Your task to perform on an android device: change the clock style Image 0: 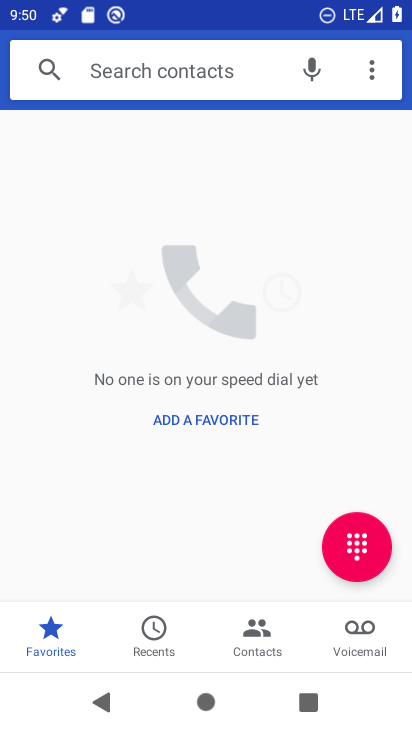
Step 0: press home button
Your task to perform on an android device: change the clock style Image 1: 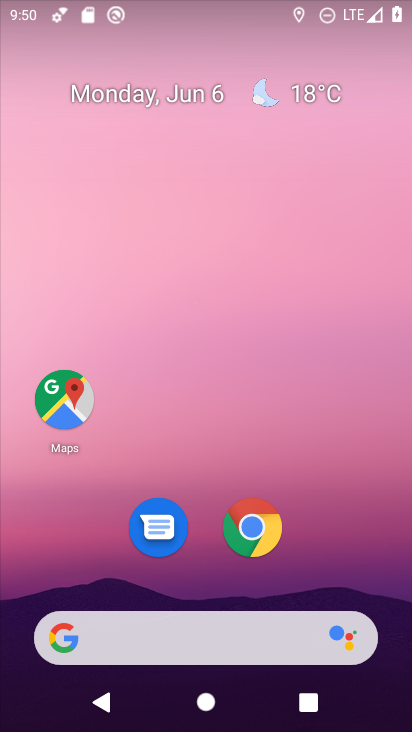
Step 1: drag from (352, 570) to (357, 171)
Your task to perform on an android device: change the clock style Image 2: 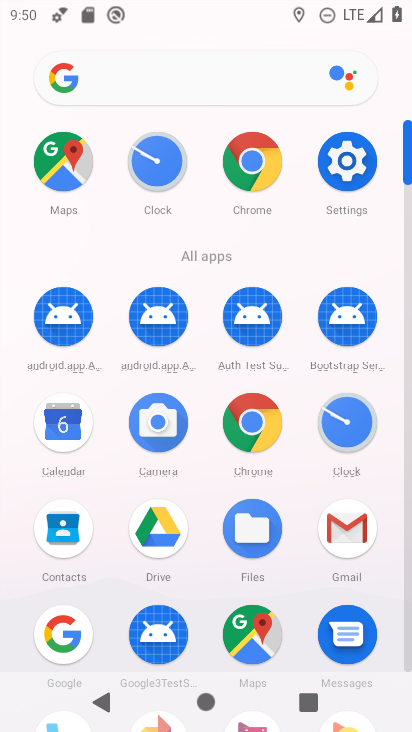
Step 2: click (354, 427)
Your task to perform on an android device: change the clock style Image 3: 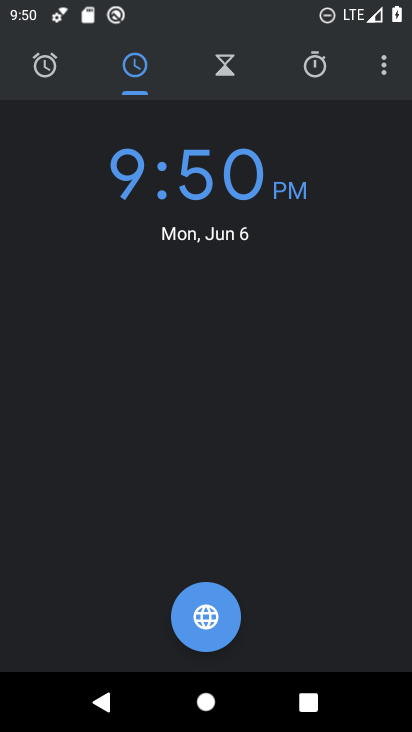
Step 3: click (388, 75)
Your task to perform on an android device: change the clock style Image 4: 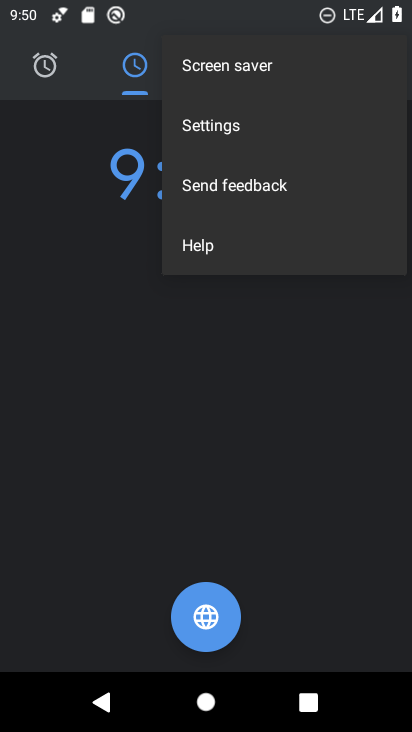
Step 4: click (274, 130)
Your task to perform on an android device: change the clock style Image 5: 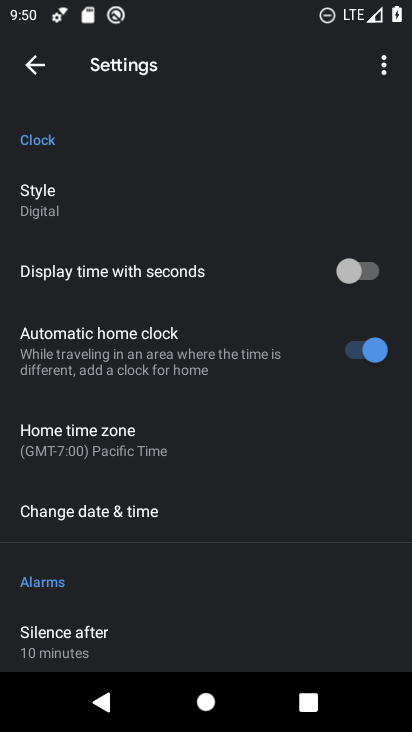
Step 5: click (97, 211)
Your task to perform on an android device: change the clock style Image 6: 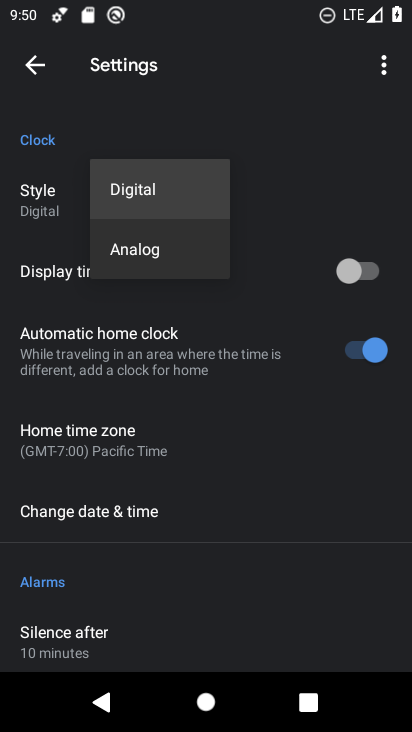
Step 6: click (139, 249)
Your task to perform on an android device: change the clock style Image 7: 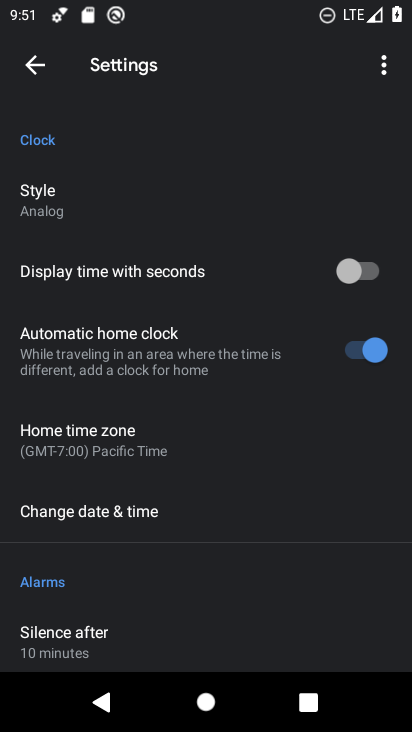
Step 7: task complete